Your task to perform on an android device: Show the shopping cart on ebay.com. Image 0: 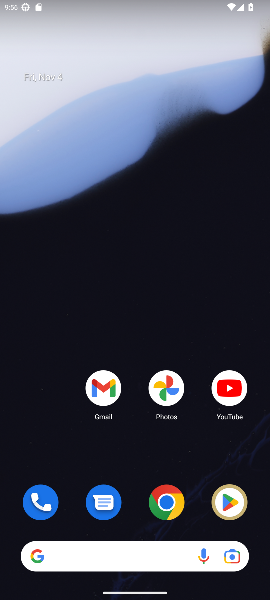
Step 0: click (179, 502)
Your task to perform on an android device: Show the shopping cart on ebay.com. Image 1: 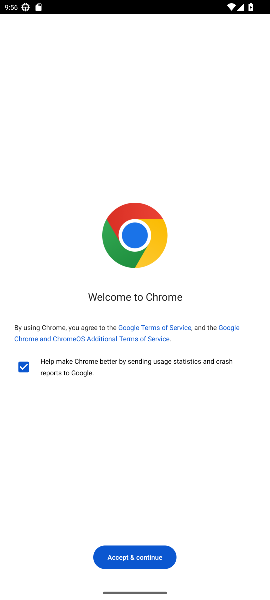
Step 1: click (148, 553)
Your task to perform on an android device: Show the shopping cart on ebay.com. Image 2: 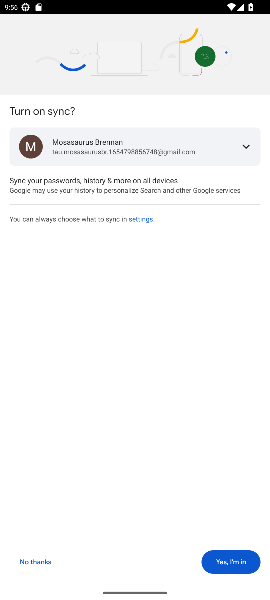
Step 2: click (236, 560)
Your task to perform on an android device: Show the shopping cart on ebay.com. Image 3: 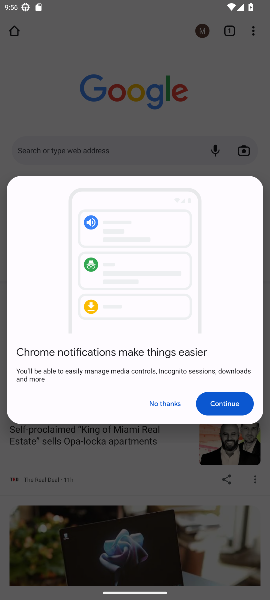
Step 3: click (163, 404)
Your task to perform on an android device: Show the shopping cart on ebay.com. Image 4: 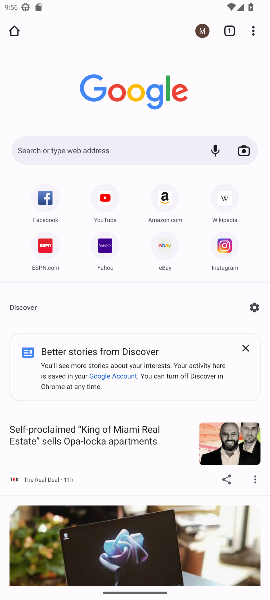
Step 4: click (124, 145)
Your task to perform on an android device: Show the shopping cart on ebay.com. Image 5: 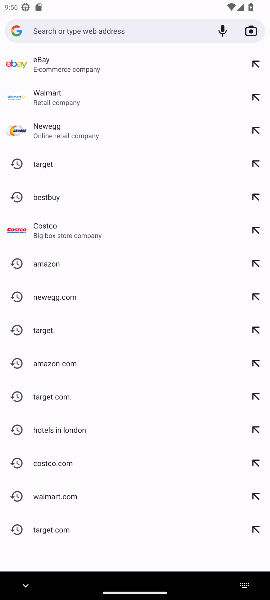
Step 5: click (66, 66)
Your task to perform on an android device: Show the shopping cart on ebay.com. Image 6: 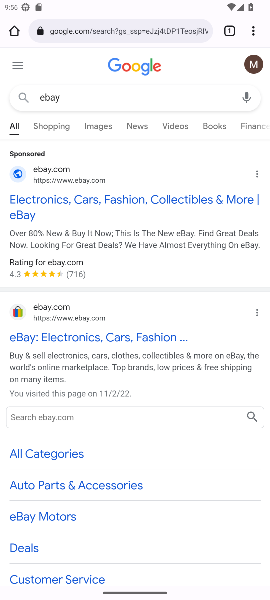
Step 6: click (88, 172)
Your task to perform on an android device: Show the shopping cart on ebay.com. Image 7: 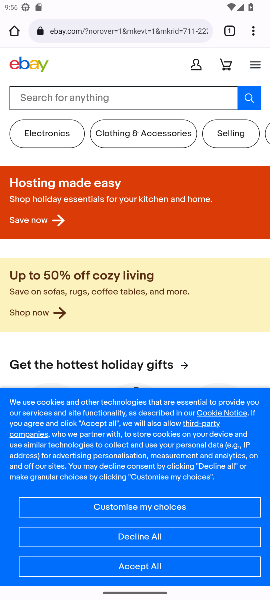
Step 7: click (231, 65)
Your task to perform on an android device: Show the shopping cart on ebay.com. Image 8: 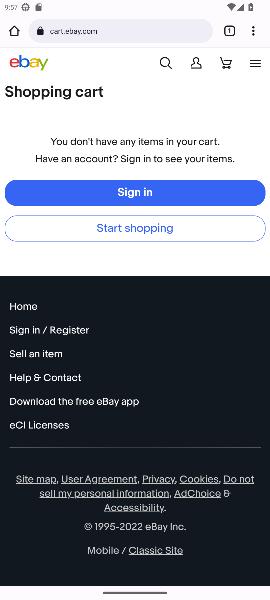
Step 8: task complete